Your task to perform on an android device: Open the calendar app, open the side menu, and click the "Day" option Image 0: 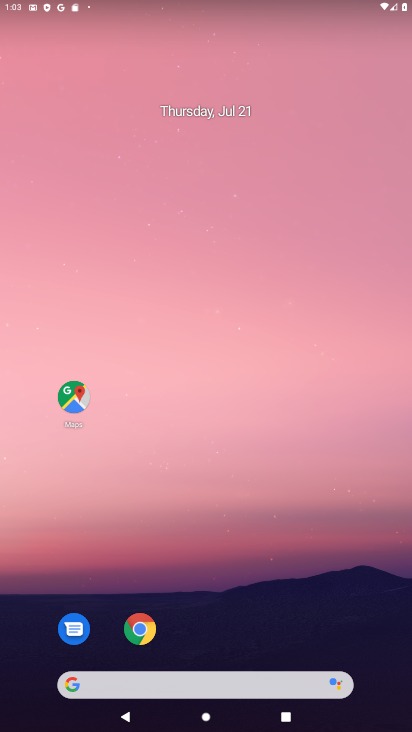
Step 0: drag from (212, 644) to (247, 91)
Your task to perform on an android device: Open the calendar app, open the side menu, and click the "Day" option Image 1: 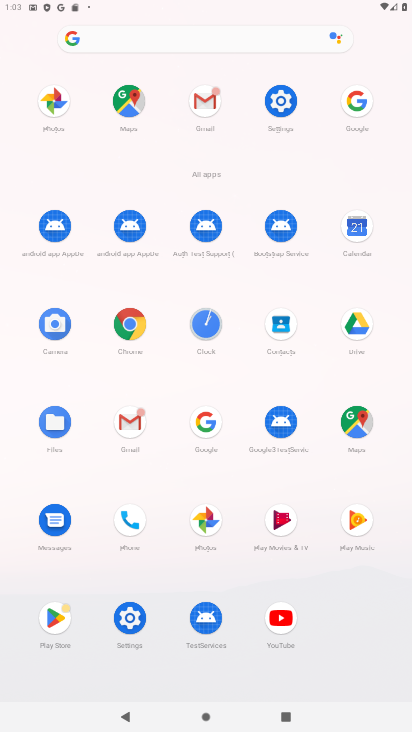
Step 1: click (355, 223)
Your task to perform on an android device: Open the calendar app, open the side menu, and click the "Day" option Image 2: 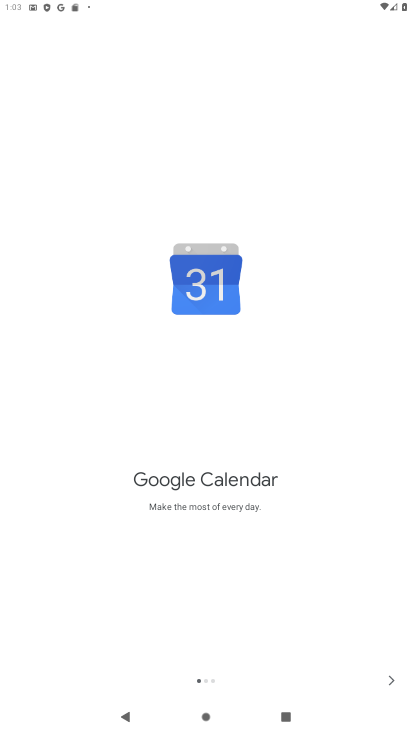
Step 2: click (387, 684)
Your task to perform on an android device: Open the calendar app, open the side menu, and click the "Day" option Image 3: 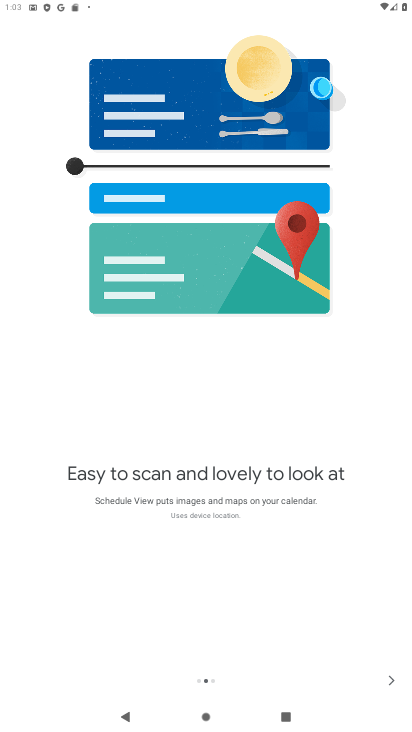
Step 3: click (388, 683)
Your task to perform on an android device: Open the calendar app, open the side menu, and click the "Day" option Image 4: 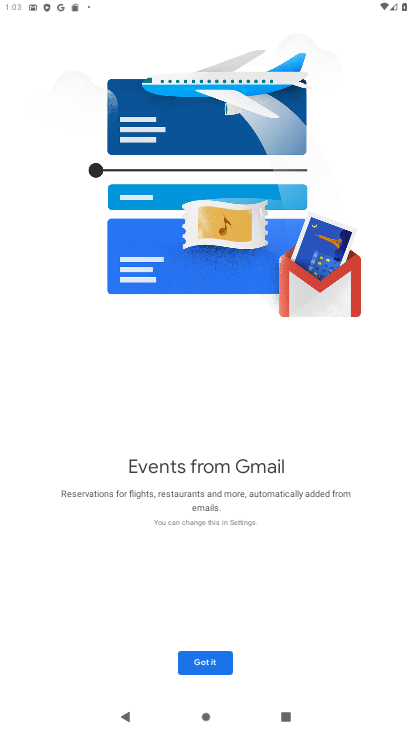
Step 4: click (215, 662)
Your task to perform on an android device: Open the calendar app, open the side menu, and click the "Day" option Image 5: 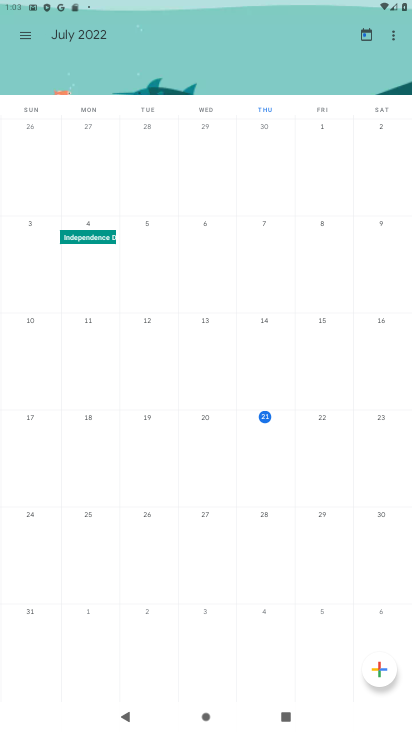
Step 5: click (29, 40)
Your task to perform on an android device: Open the calendar app, open the side menu, and click the "Day" option Image 6: 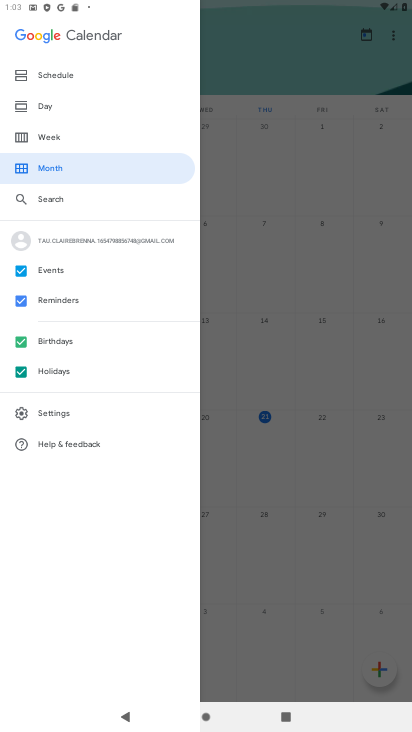
Step 6: click (50, 103)
Your task to perform on an android device: Open the calendar app, open the side menu, and click the "Day" option Image 7: 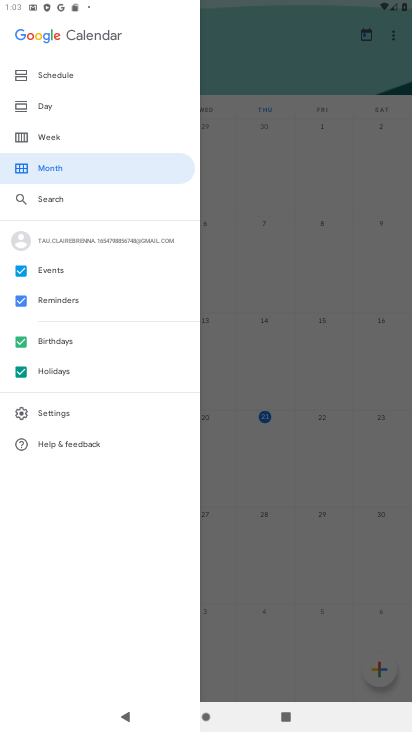
Step 7: click (38, 111)
Your task to perform on an android device: Open the calendar app, open the side menu, and click the "Day" option Image 8: 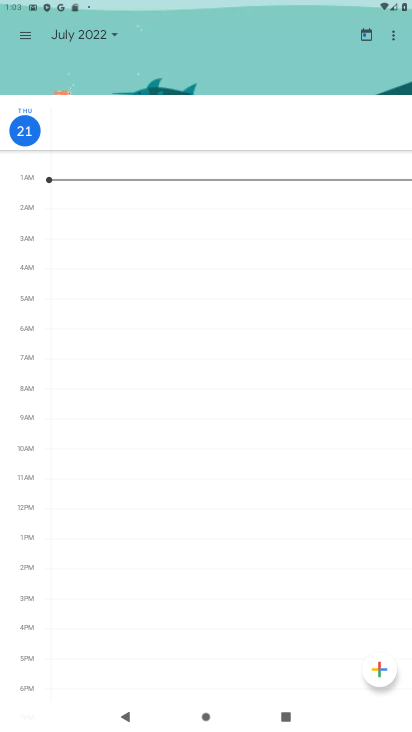
Step 8: task complete